Your task to perform on an android device: What's the weather going to be tomorrow? Image 0: 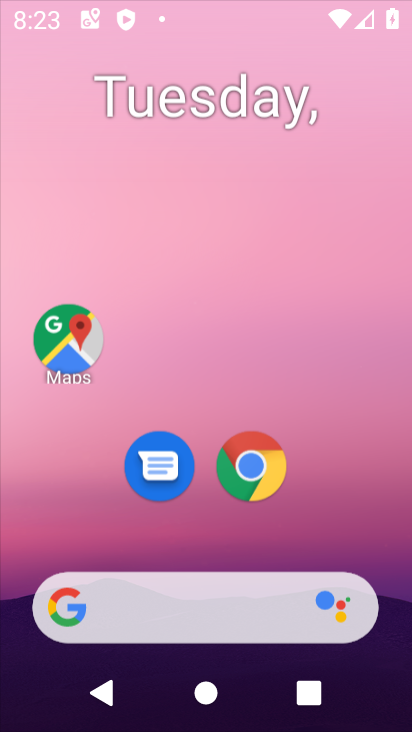
Step 0: click (226, 152)
Your task to perform on an android device: What's the weather going to be tomorrow? Image 1: 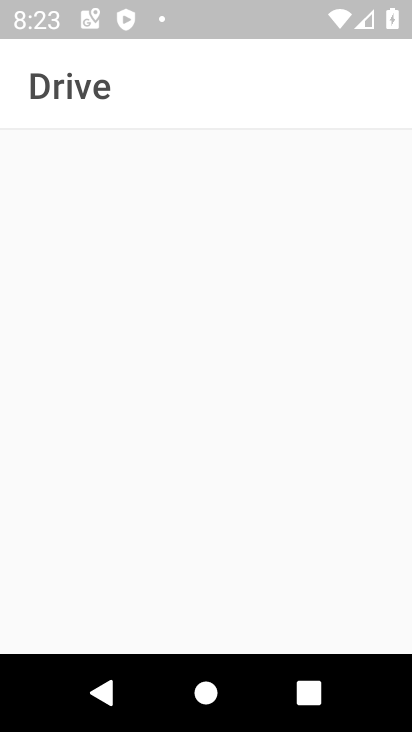
Step 1: press home button
Your task to perform on an android device: What's the weather going to be tomorrow? Image 2: 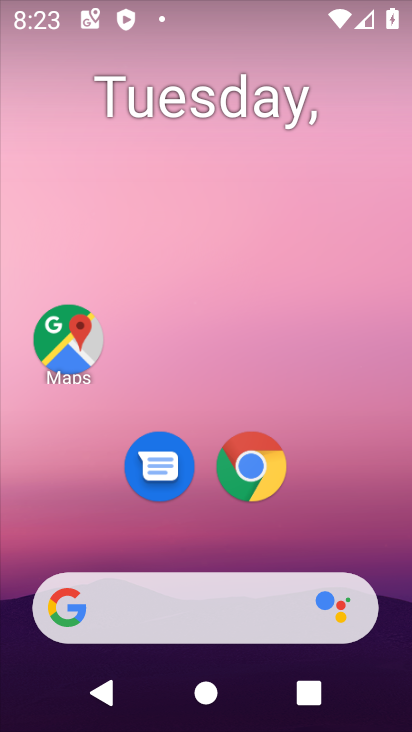
Step 2: click (182, 596)
Your task to perform on an android device: What's the weather going to be tomorrow? Image 3: 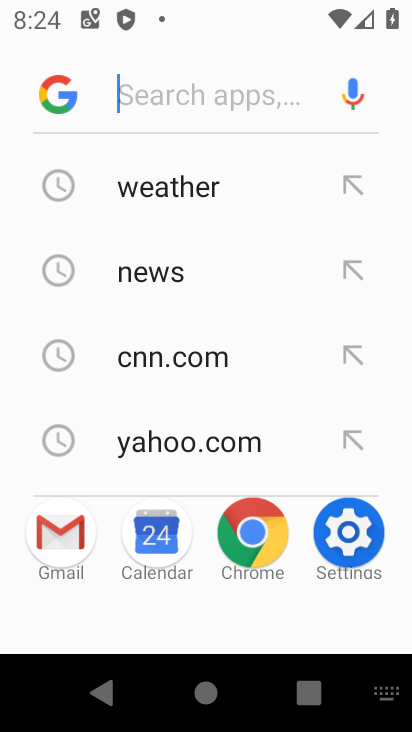
Step 3: click (170, 200)
Your task to perform on an android device: What's the weather going to be tomorrow? Image 4: 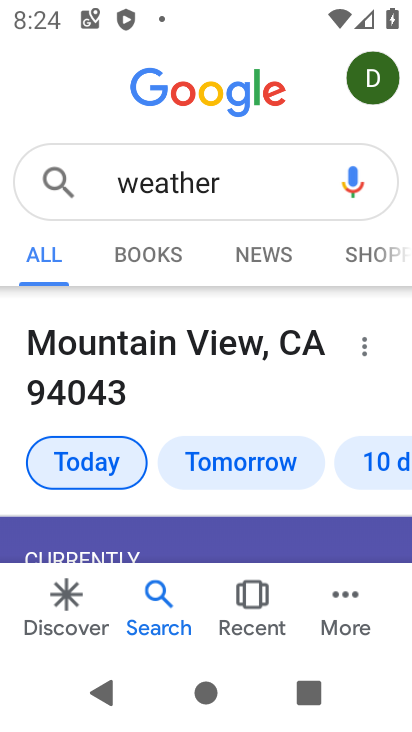
Step 4: drag from (207, 468) to (240, 282)
Your task to perform on an android device: What's the weather going to be tomorrow? Image 5: 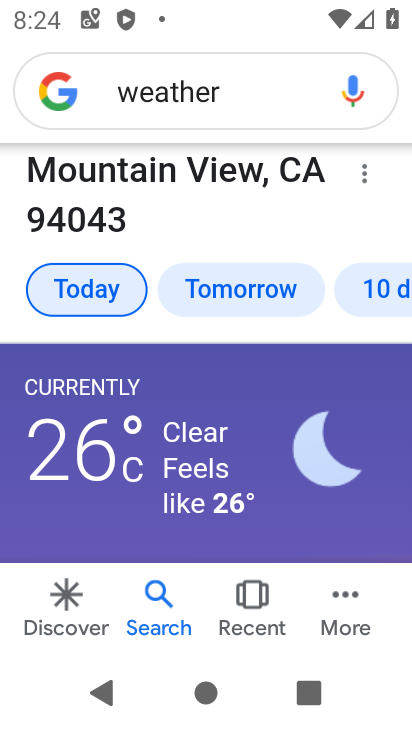
Step 5: click (244, 292)
Your task to perform on an android device: What's the weather going to be tomorrow? Image 6: 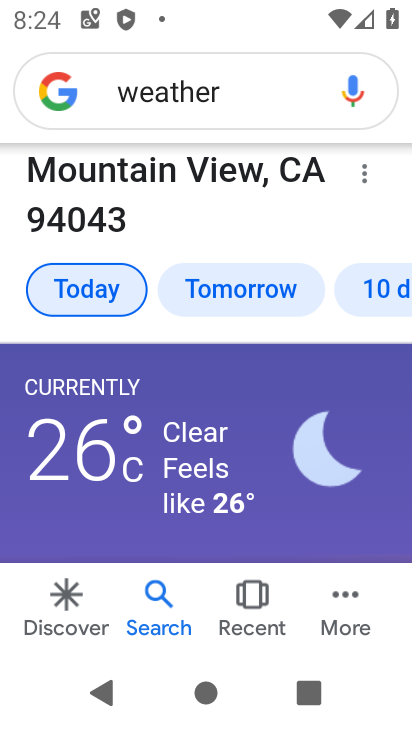
Step 6: click (244, 292)
Your task to perform on an android device: What's the weather going to be tomorrow? Image 7: 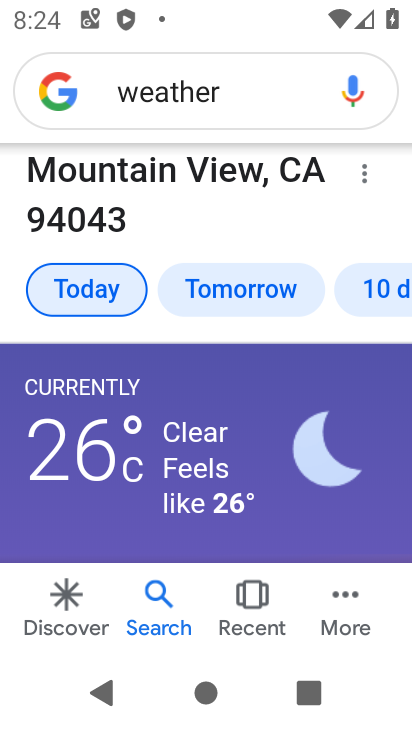
Step 7: click (244, 294)
Your task to perform on an android device: What's the weather going to be tomorrow? Image 8: 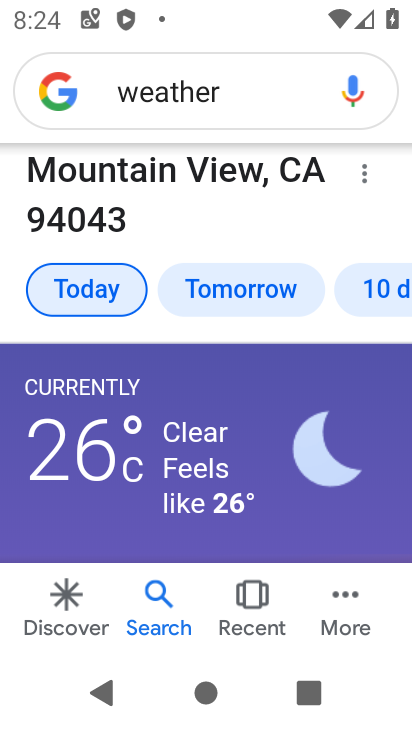
Step 8: click (244, 294)
Your task to perform on an android device: What's the weather going to be tomorrow? Image 9: 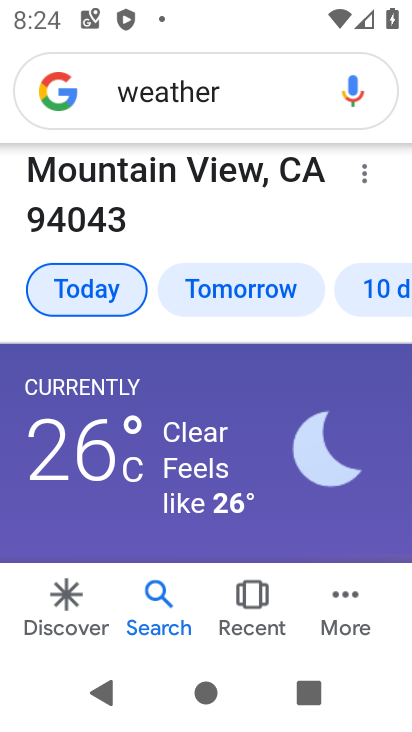
Step 9: click (244, 294)
Your task to perform on an android device: What's the weather going to be tomorrow? Image 10: 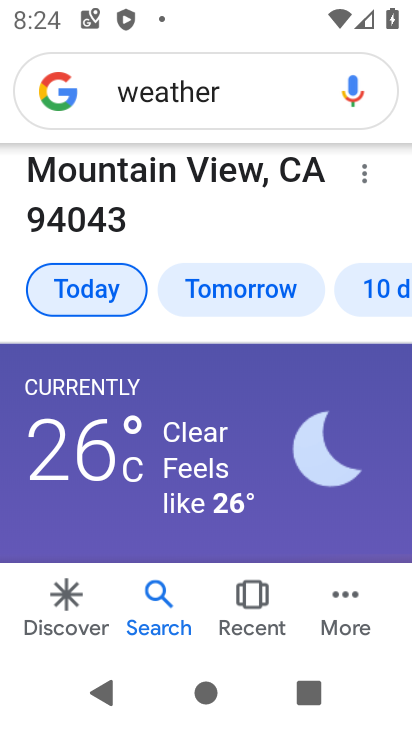
Step 10: click (241, 301)
Your task to perform on an android device: What's the weather going to be tomorrow? Image 11: 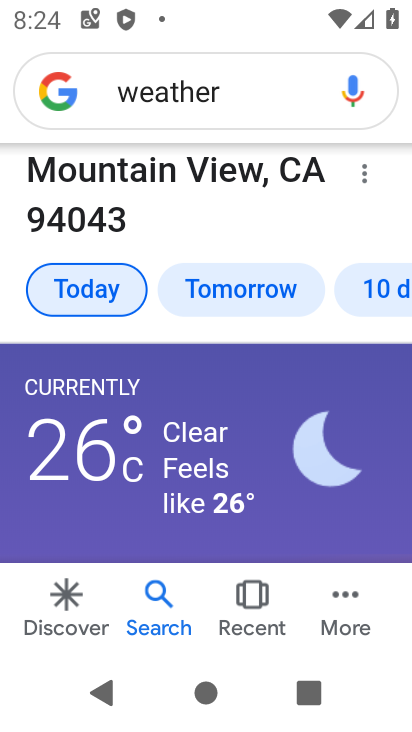
Step 11: click (242, 302)
Your task to perform on an android device: What's the weather going to be tomorrow? Image 12: 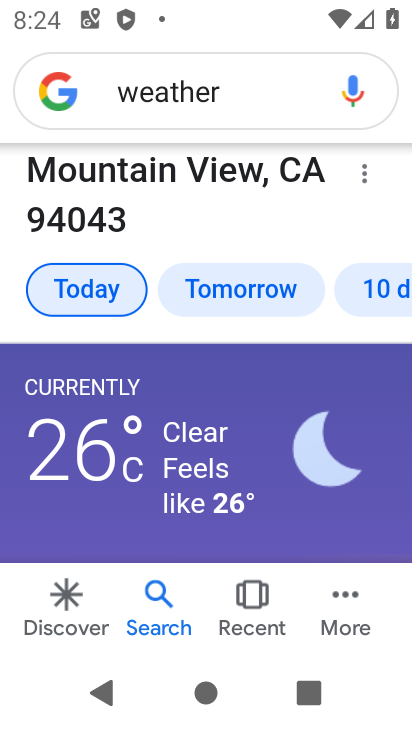
Step 12: task complete